Your task to perform on an android device: Open Google Chrome and open the bookmarks view Image 0: 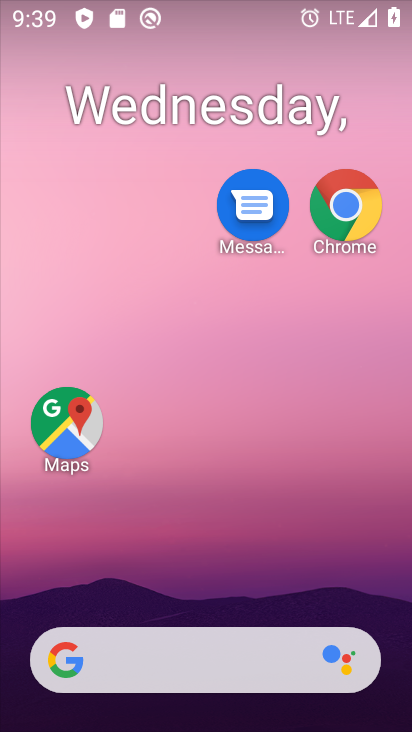
Step 0: drag from (214, 549) to (246, 18)
Your task to perform on an android device: Open Google Chrome and open the bookmarks view Image 1: 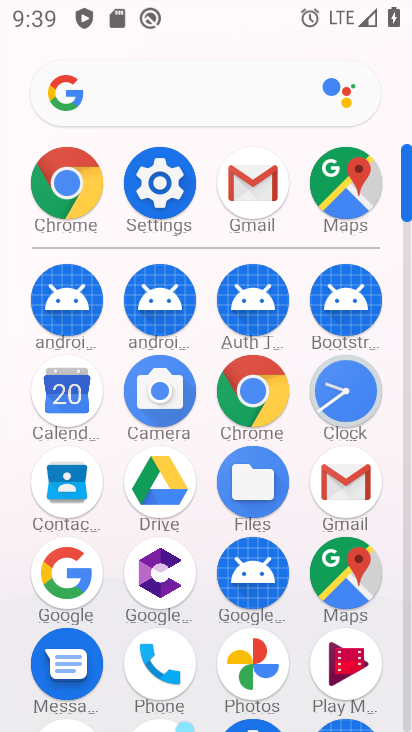
Step 1: click (238, 400)
Your task to perform on an android device: Open Google Chrome and open the bookmarks view Image 2: 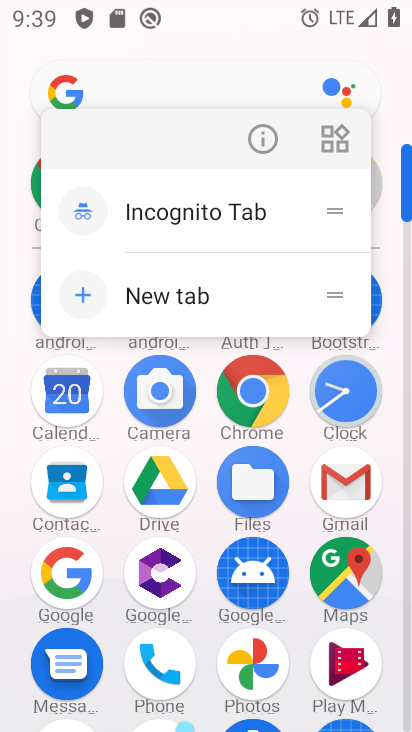
Step 2: click (214, 139)
Your task to perform on an android device: Open Google Chrome and open the bookmarks view Image 3: 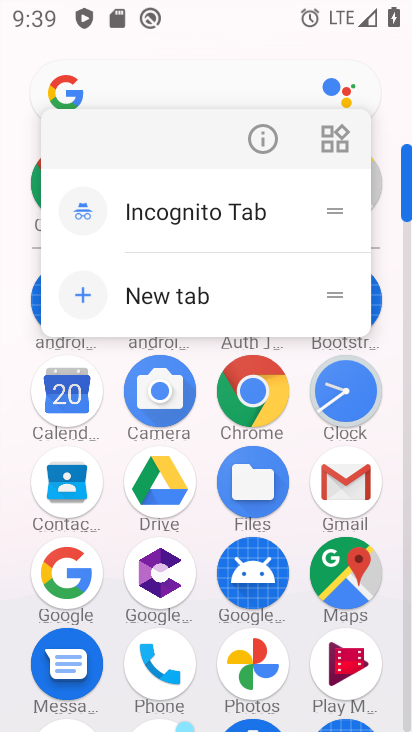
Step 3: click (263, 128)
Your task to perform on an android device: Open Google Chrome and open the bookmarks view Image 4: 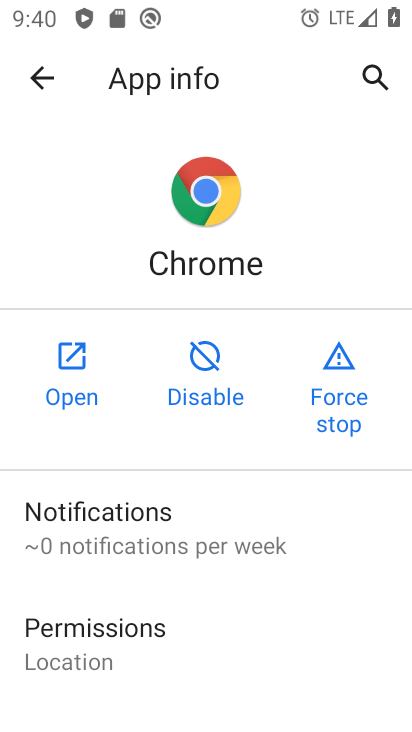
Step 4: click (68, 378)
Your task to perform on an android device: Open Google Chrome and open the bookmarks view Image 5: 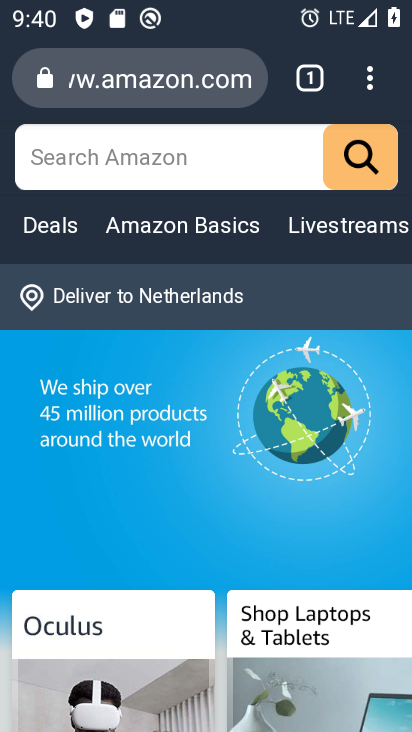
Step 5: task complete